Your task to perform on an android device: turn on improve location accuracy Image 0: 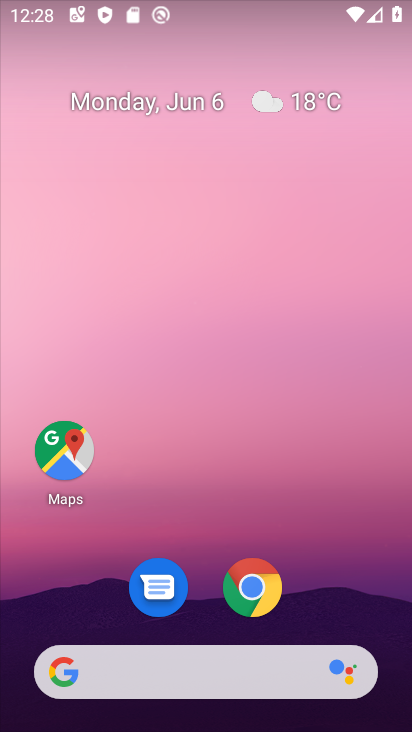
Step 0: drag from (345, 569) to (304, 69)
Your task to perform on an android device: turn on improve location accuracy Image 1: 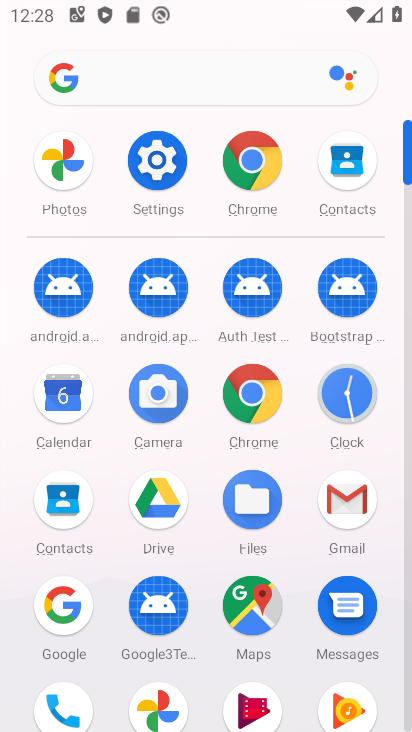
Step 1: click (148, 174)
Your task to perform on an android device: turn on improve location accuracy Image 2: 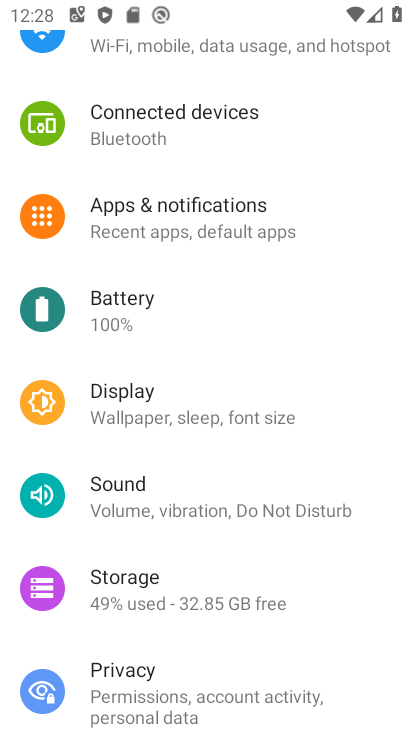
Step 2: drag from (240, 580) to (328, 323)
Your task to perform on an android device: turn on improve location accuracy Image 3: 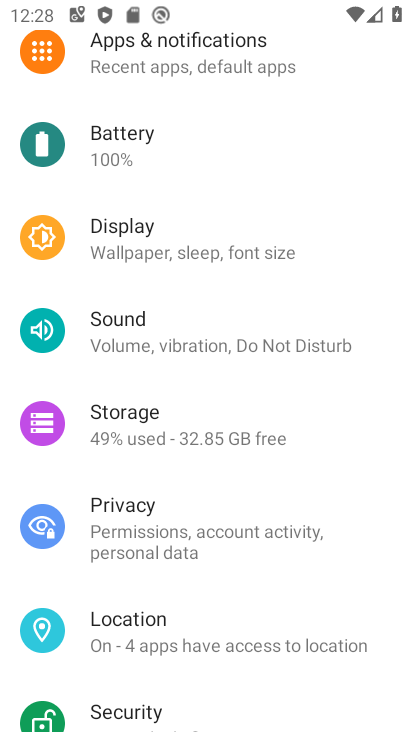
Step 3: click (200, 617)
Your task to perform on an android device: turn on improve location accuracy Image 4: 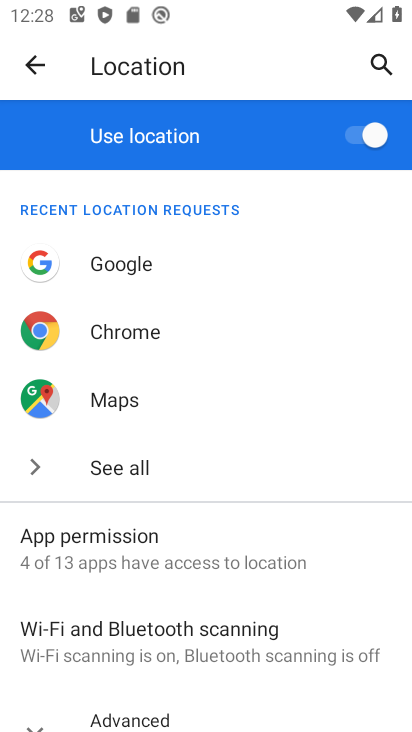
Step 4: drag from (302, 579) to (340, 310)
Your task to perform on an android device: turn on improve location accuracy Image 5: 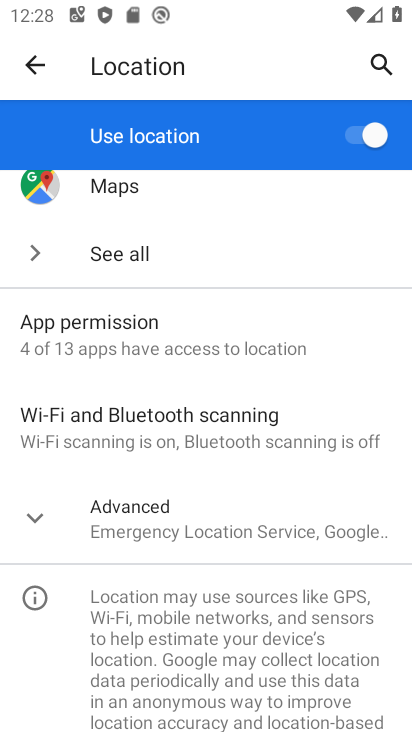
Step 5: click (271, 535)
Your task to perform on an android device: turn on improve location accuracy Image 6: 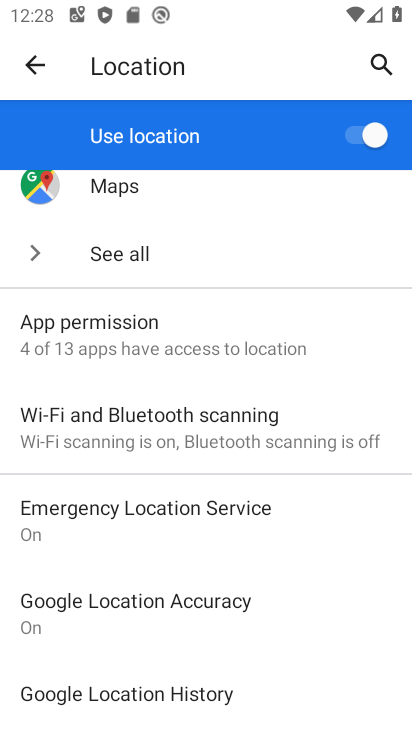
Step 6: click (217, 611)
Your task to perform on an android device: turn on improve location accuracy Image 7: 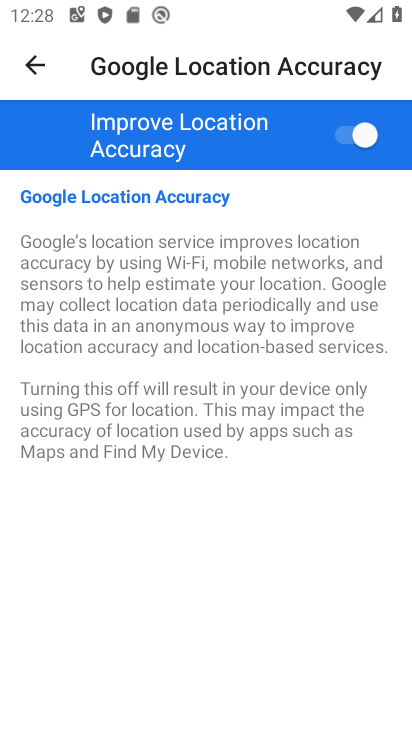
Step 7: task complete